Your task to perform on an android device: toggle pop-ups in chrome Image 0: 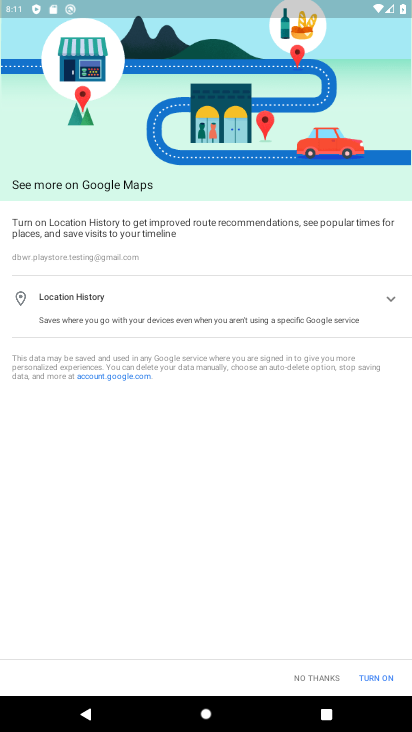
Step 0: press home button
Your task to perform on an android device: toggle pop-ups in chrome Image 1: 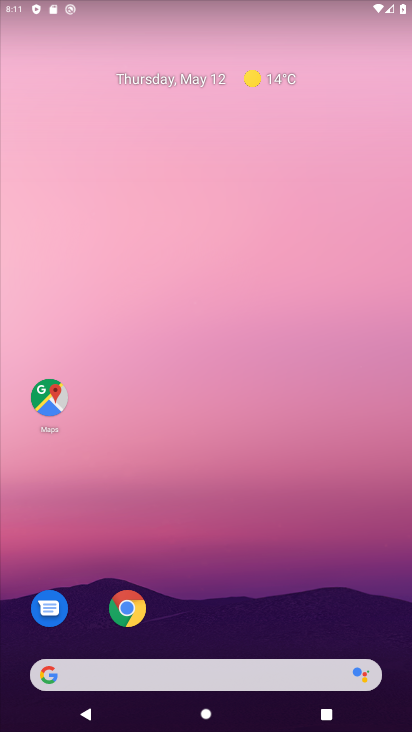
Step 1: click (129, 610)
Your task to perform on an android device: toggle pop-ups in chrome Image 2: 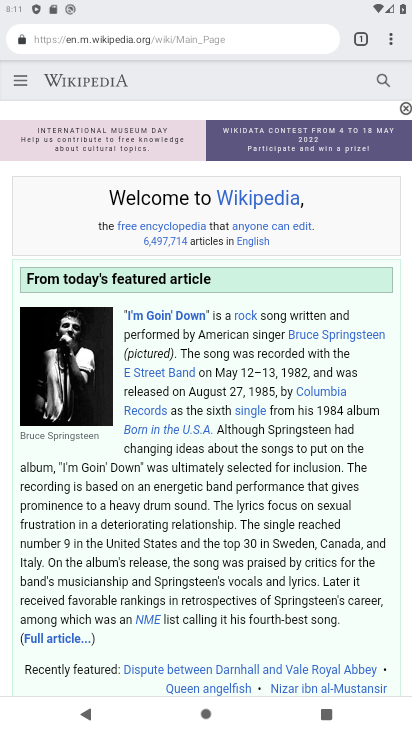
Step 2: click (383, 34)
Your task to perform on an android device: toggle pop-ups in chrome Image 3: 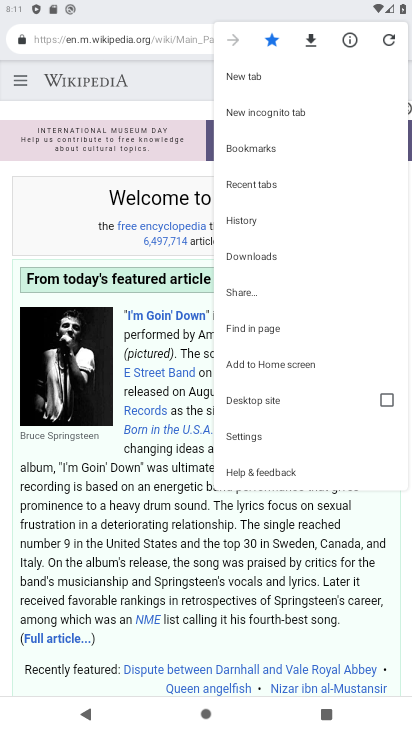
Step 3: click (245, 439)
Your task to perform on an android device: toggle pop-ups in chrome Image 4: 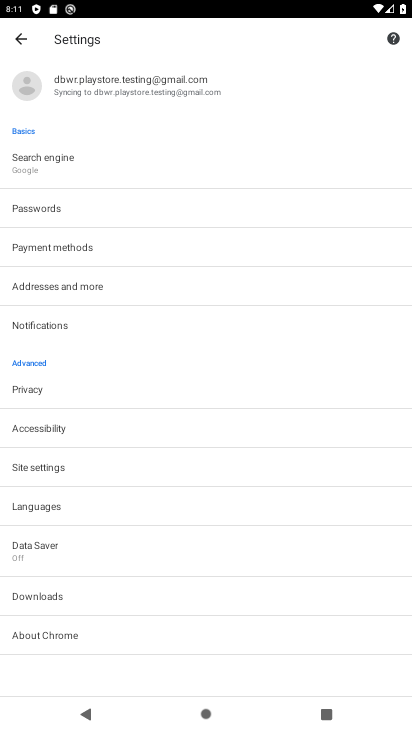
Step 4: click (32, 468)
Your task to perform on an android device: toggle pop-ups in chrome Image 5: 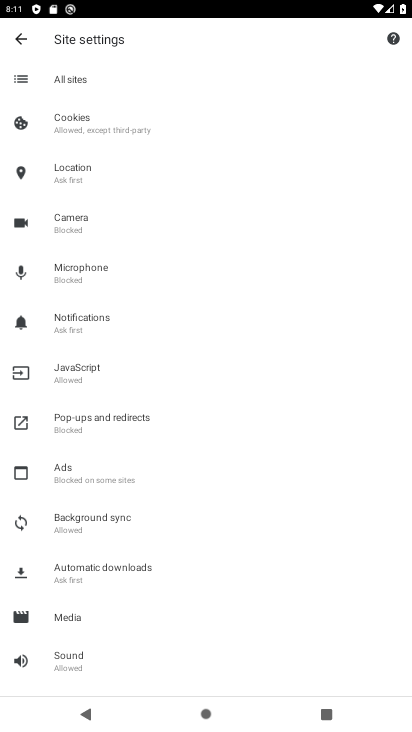
Step 5: click (98, 418)
Your task to perform on an android device: toggle pop-ups in chrome Image 6: 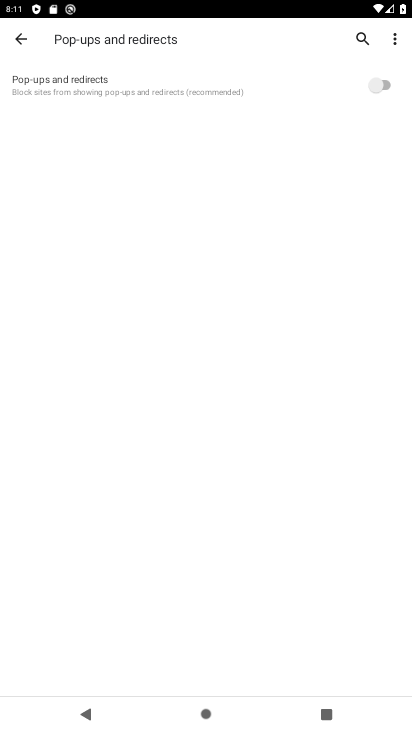
Step 6: click (378, 83)
Your task to perform on an android device: toggle pop-ups in chrome Image 7: 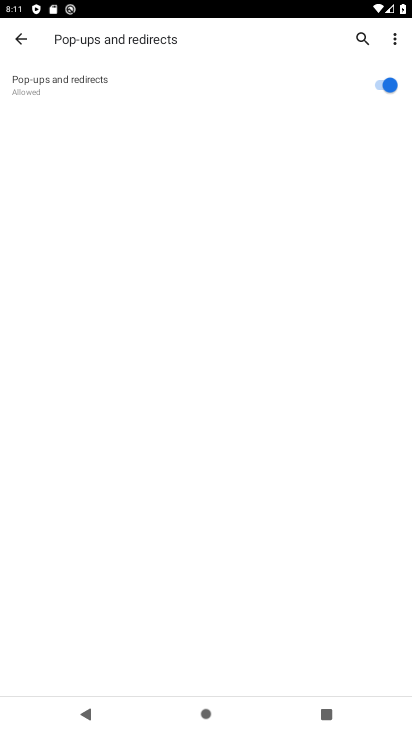
Step 7: task complete